Your task to perform on an android device: Open Google Chrome and click the shortcut for Amazon.com Image 0: 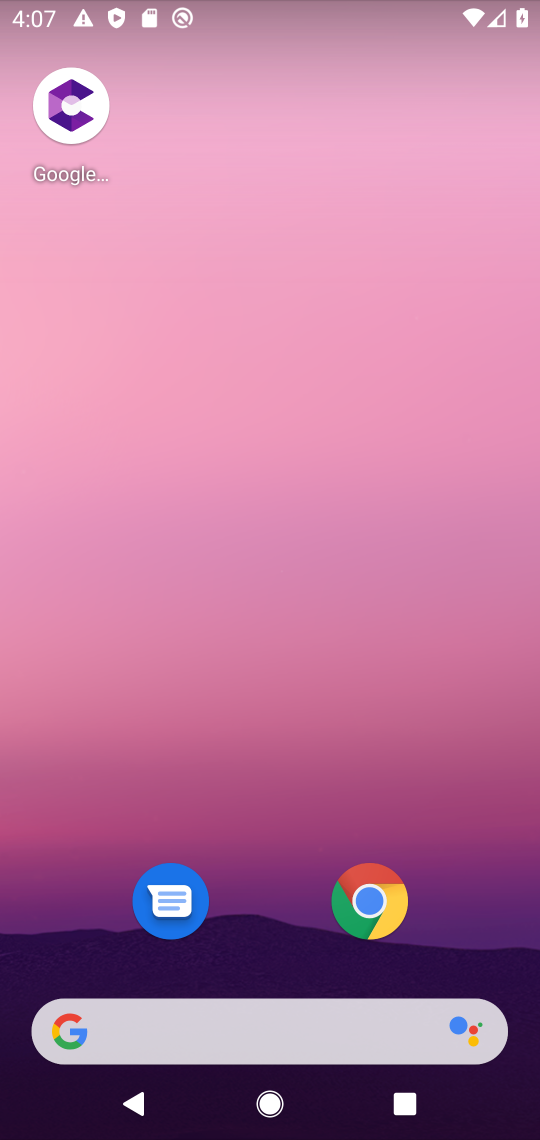
Step 0: click (378, 933)
Your task to perform on an android device: Open Google Chrome and click the shortcut for Amazon.com Image 1: 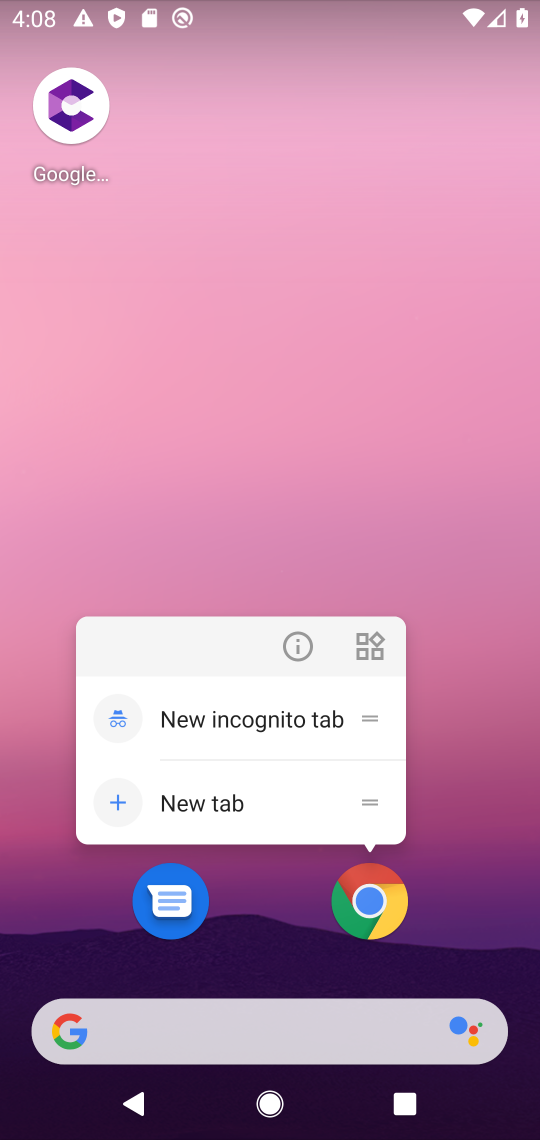
Step 1: click (366, 900)
Your task to perform on an android device: Open Google Chrome and click the shortcut for Amazon.com Image 2: 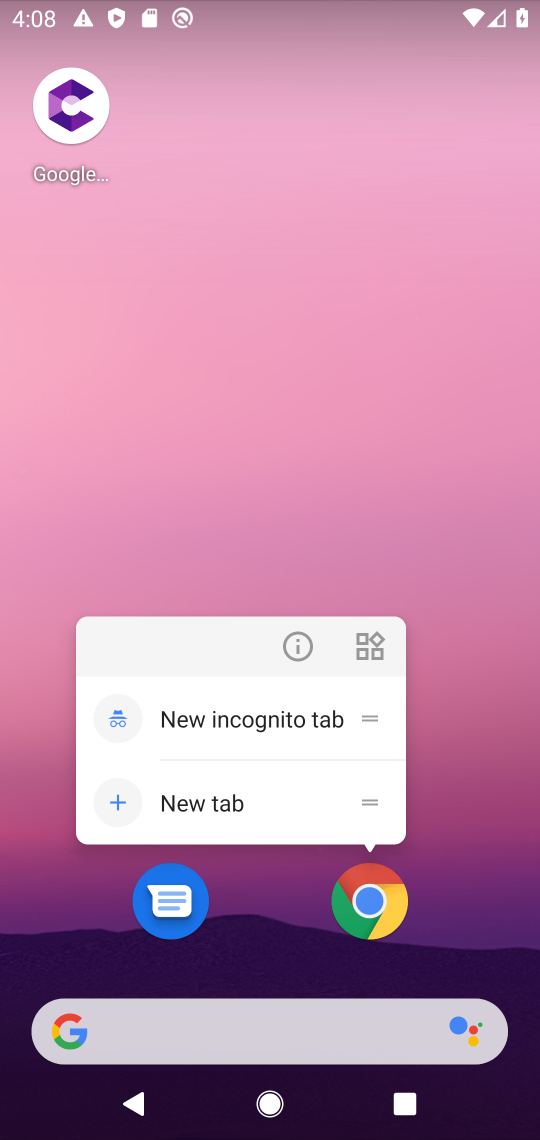
Step 2: click (392, 896)
Your task to perform on an android device: Open Google Chrome and click the shortcut for Amazon.com Image 3: 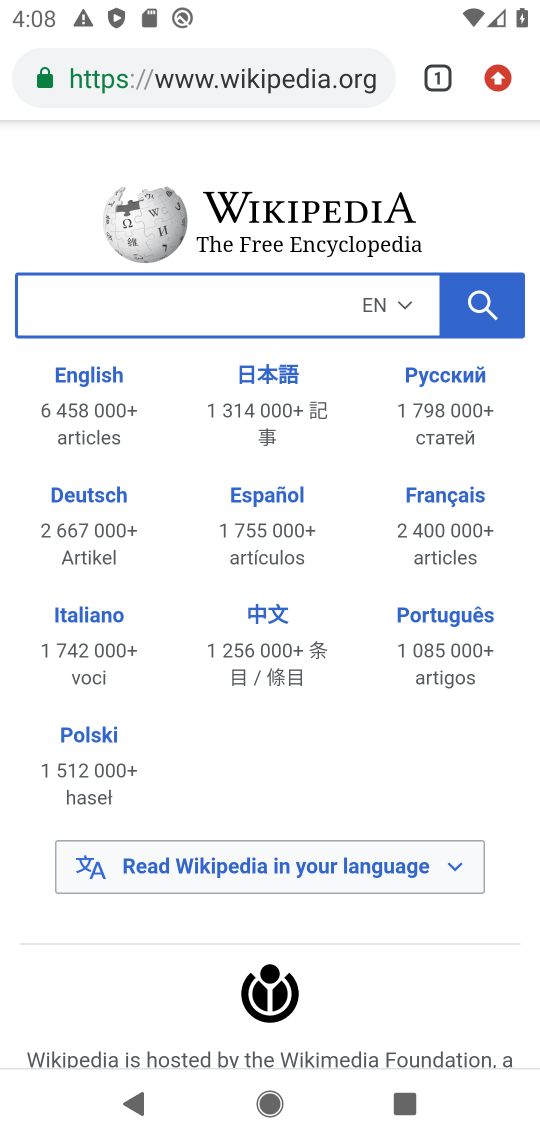
Step 3: click (232, 76)
Your task to perform on an android device: Open Google Chrome and click the shortcut for Amazon.com Image 4: 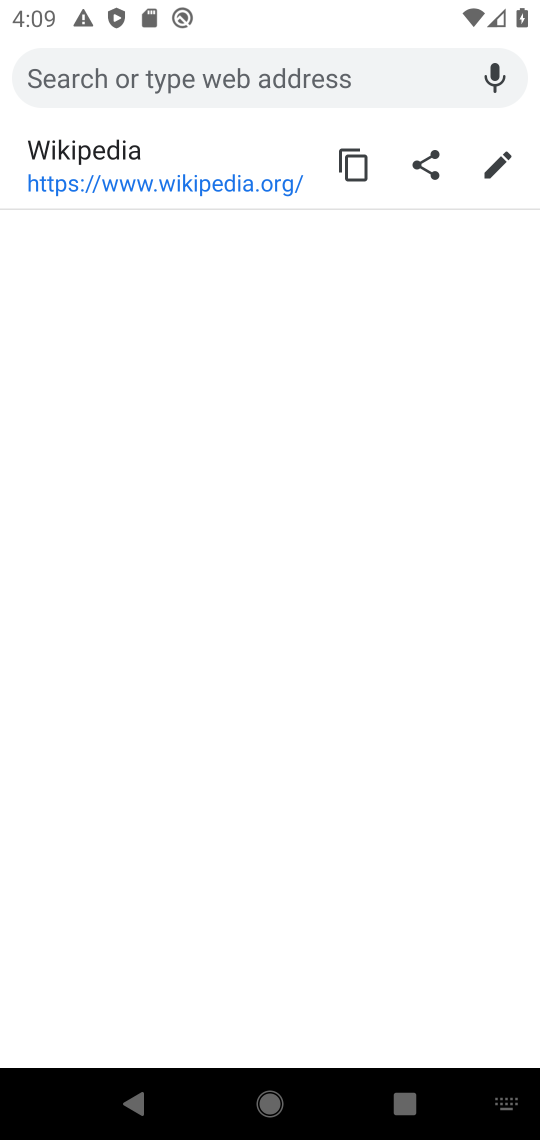
Step 4: type "Amazon.com"
Your task to perform on an android device: Open Google Chrome and click the shortcut for Amazon.com Image 5: 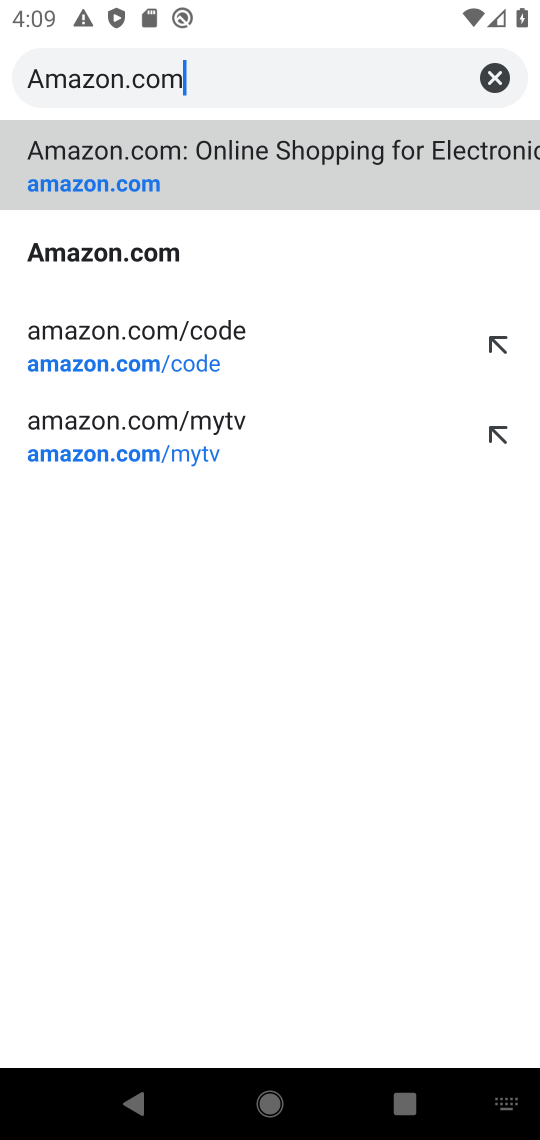
Step 5: type "Amazon.com"
Your task to perform on an android device: Open Google Chrome and click the shortcut for Amazon.com Image 6: 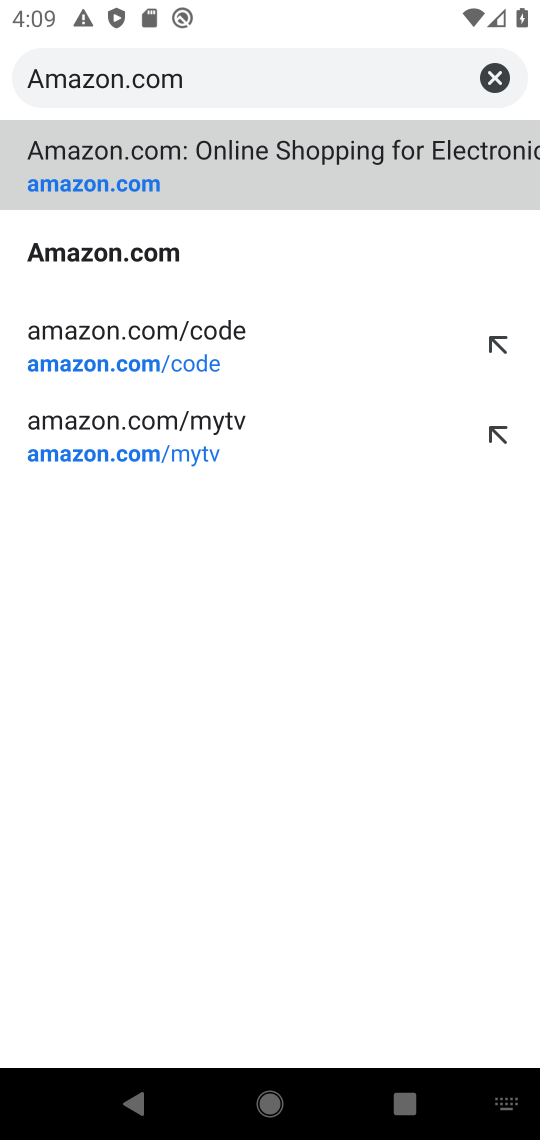
Step 6: click (193, 169)
Your task to perform on an android device: Open Google Chrome and click the shortcut for Amazon.com Image 7: 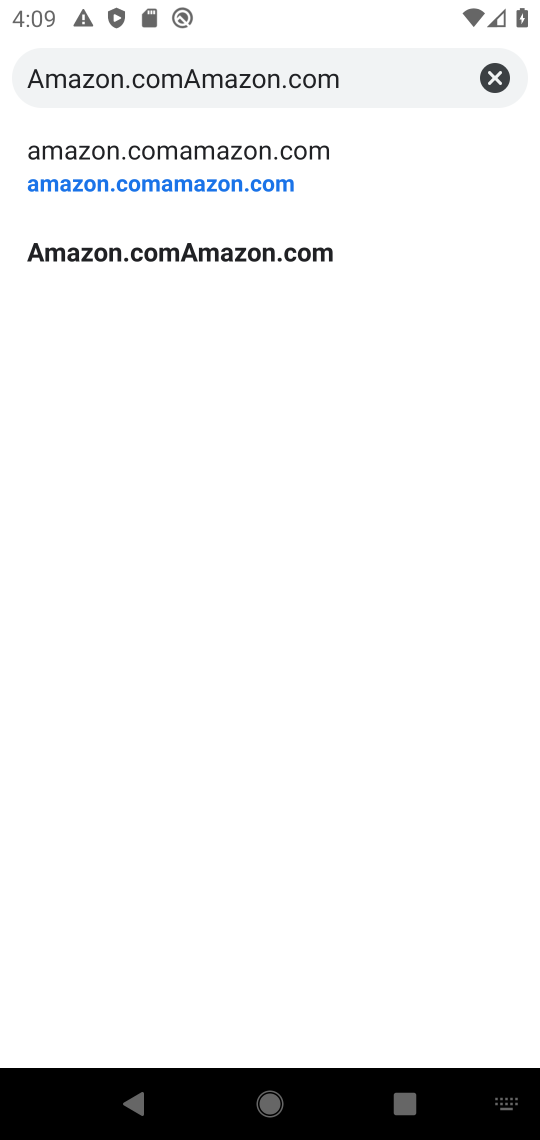
Step 7: click (178, 174)
Your task to perform on an android device: Open Google Chrome and click the shortcut for Amazon.com Image 8: 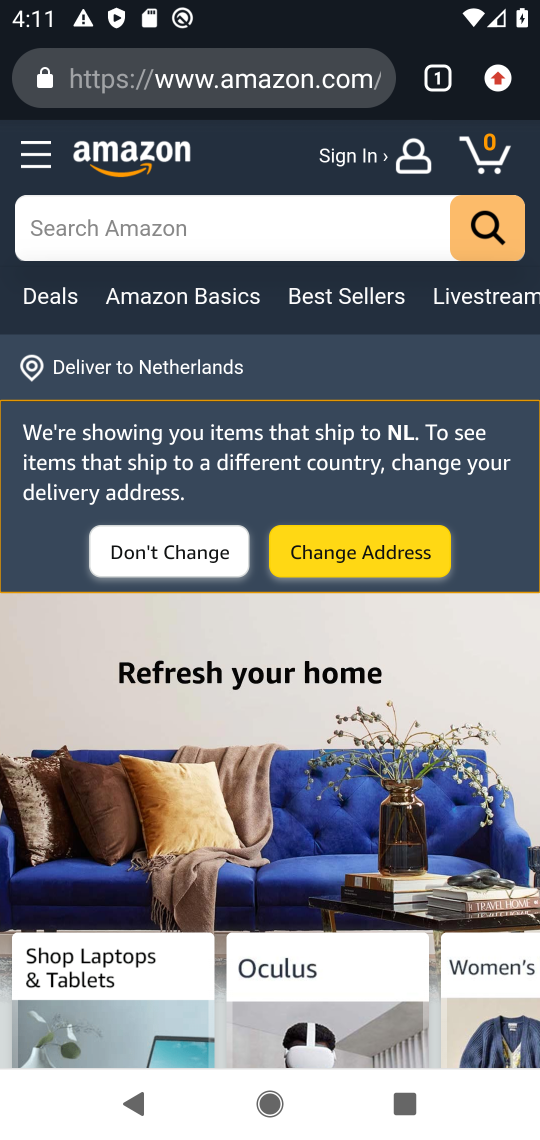
Step 8: task complete